Your task to perform on an android device: move an email to a new category in the gmail app Image 0: 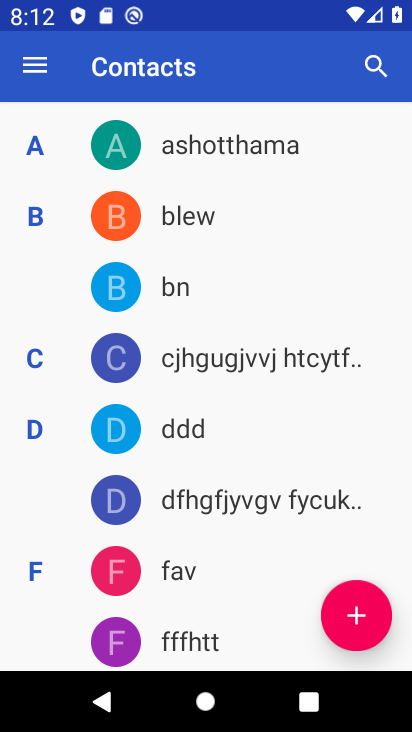
Step 0: press home button
Your task to perform on an android device: move an email to a new category in the gmail app Image 1: 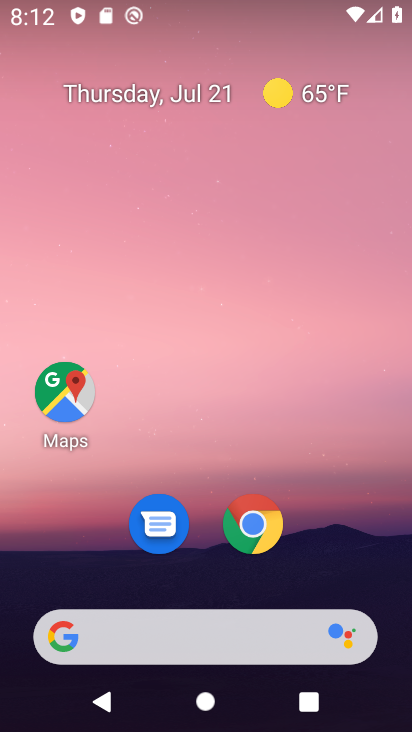
Step 1: drag from (197, 623) to (198, 36)
Your task to perform on an android device: move an email to a new category in the gmail app Image 2: 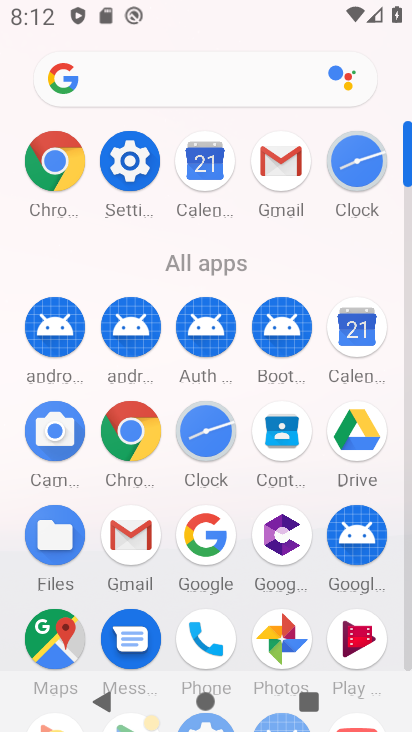
Step 2: click (138, 539)
Your task to perform on an android device: move an email to a new category in the gmail app Image 3: 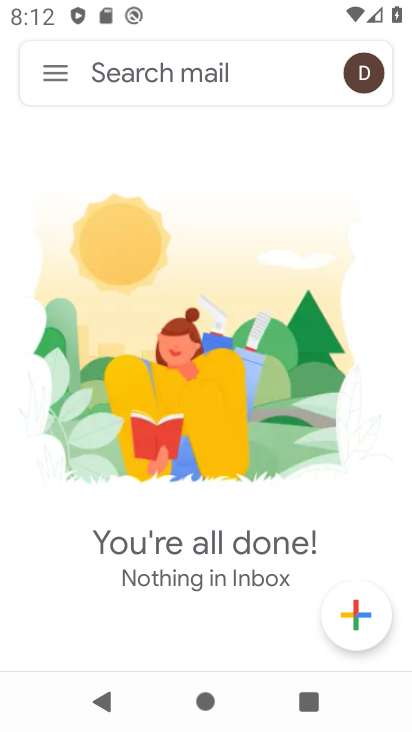
Step 3: click (46, 71)
Your task to perform on an android device: move an email to a new category in the gmail app Image 4: 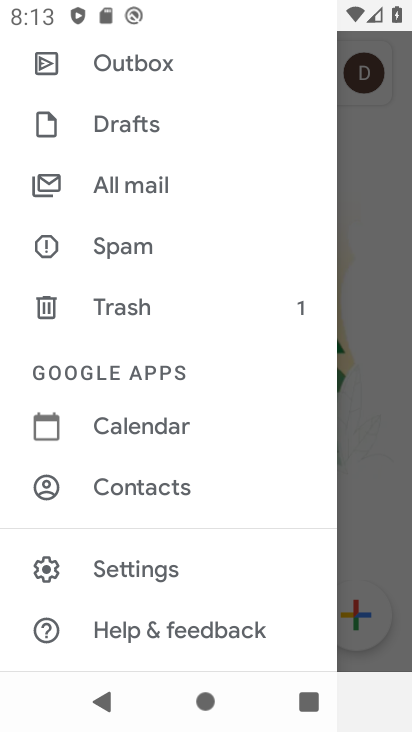
Step 4: click (135, 186)
Your task to perform on an android device: move an email to a new category in the gmail app Image 5: 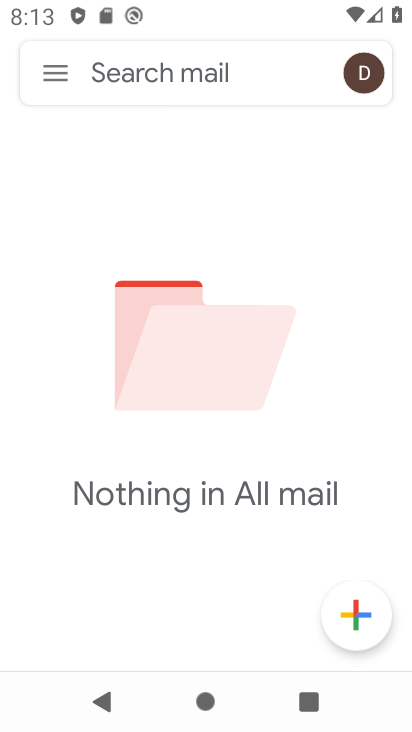
Step 5: click (245, 602)
Your task to perform on an android device: move an email to a new category in the gmail app Image 6: 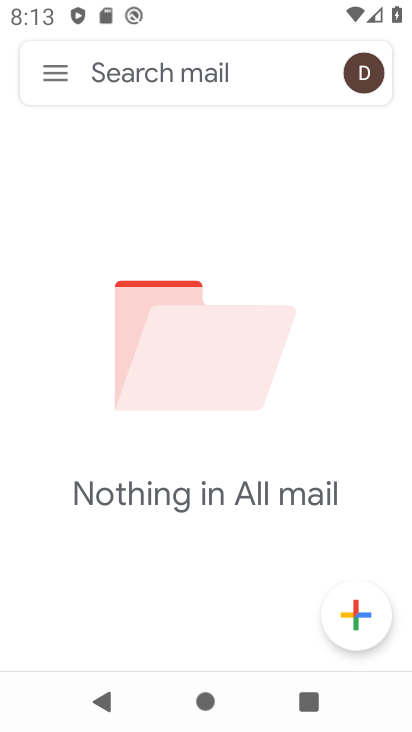
Step 6: click (63, 73)
Your task to perform on an android device: move an email to a new category in the gmail app Image 7: 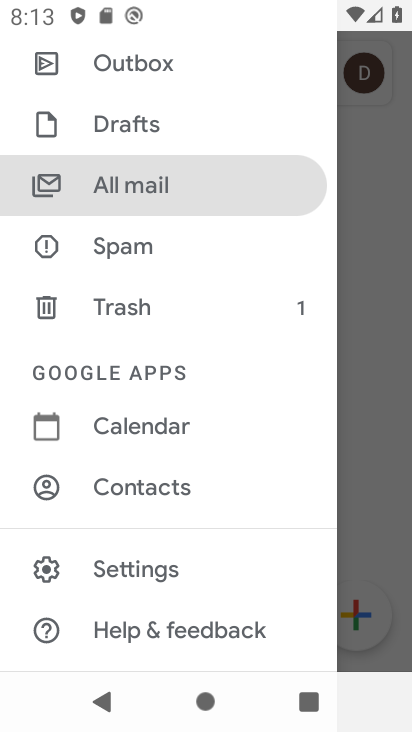
Step 7: click (161, 167)
Your task to perform on an android device: move an email to a new category in the gmail app Image 8: 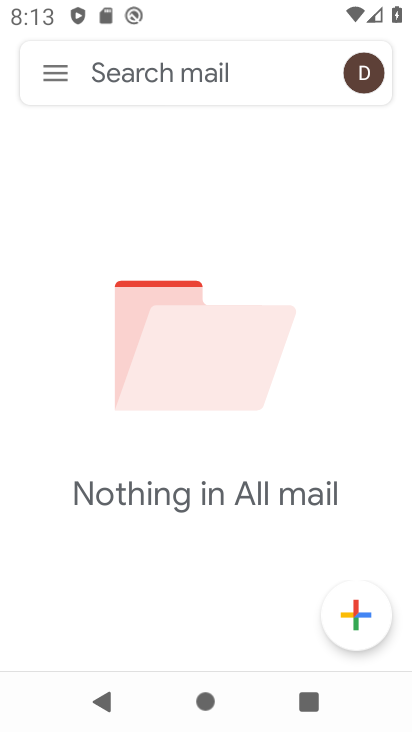
Step 8: task complete